Your task to perform on an android device: all mails in gmail Image 0: 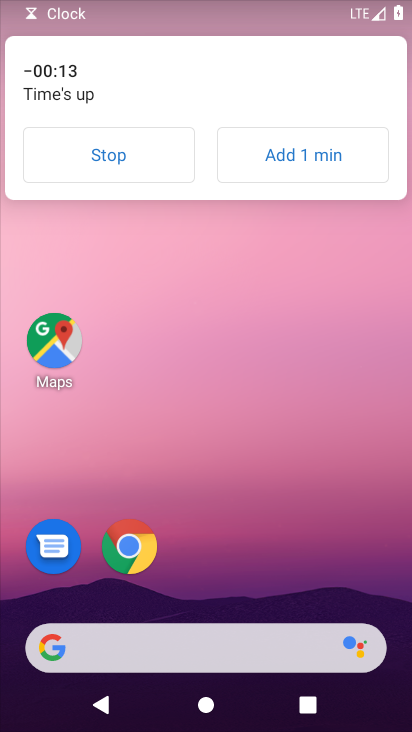
Step 0: click (139, 159)
Your task to perform on an android device: all mails in gmail Image 1: 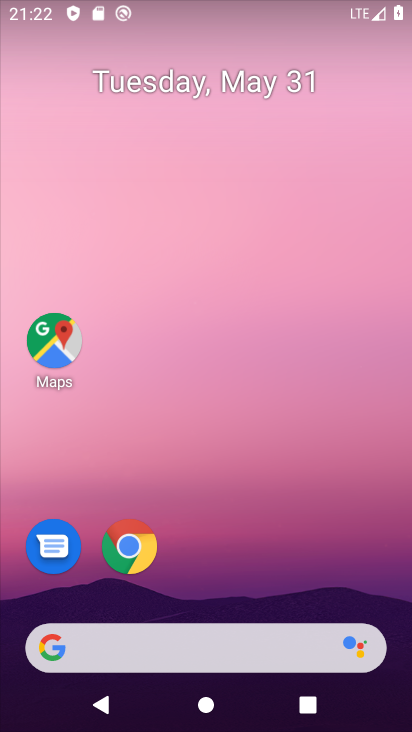
Step 1: drag from (401, 693) to (343, 31)
Your task to perform on an android device: all mails in gmail Image 2: 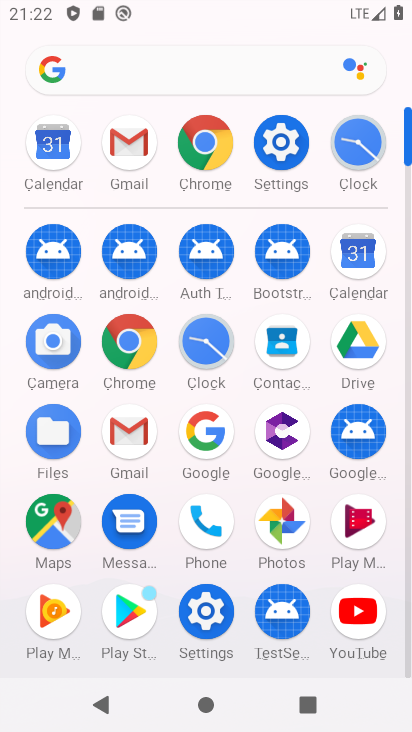
Step 2: click (125, 148)
Your task to perform on an android device: all mails in gmail Image 3: 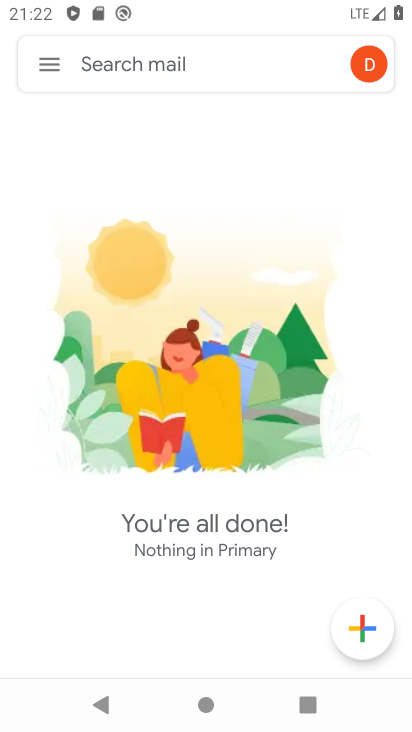
Step 3: click (50, 63)
Your task to perform on an android device: all mails in gmail Image 4: 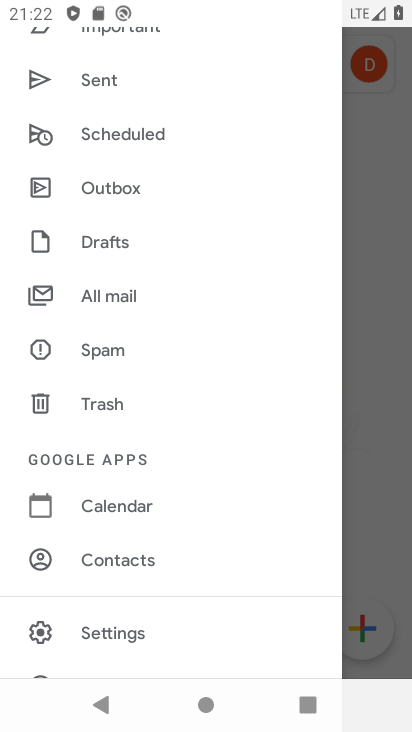
Step 4: click (93, 288)
Your task to perform on an android device: all mails in gmail Image 5: 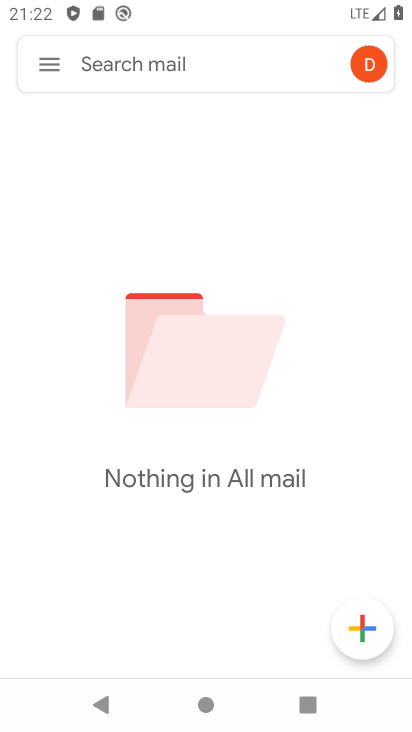
Step 5: task complete